Your task to perform on an android device: search for starred emails in the gmail app Image 0: 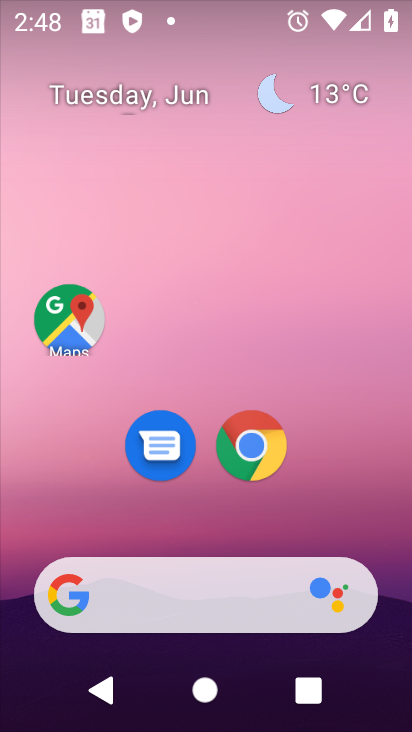
Step 0: drag from (391, 596) to (326, 78)
Your task to perform on an android device: search for starred emails in the gmail app Image 1: 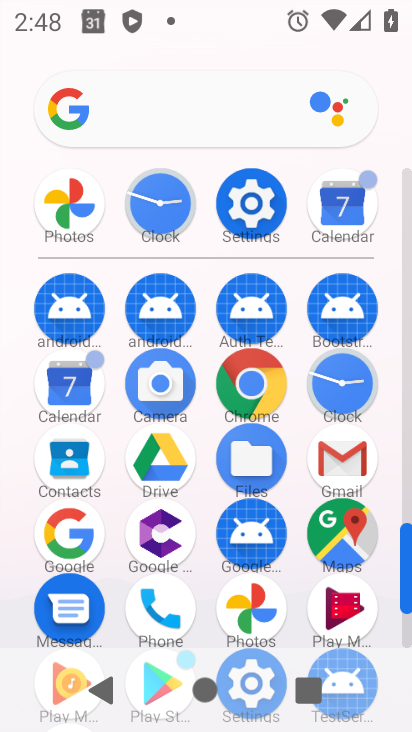
Step 1: click (410, 636)
Your task to perform on an android device: search for starred emails in the gmail app Image 2: 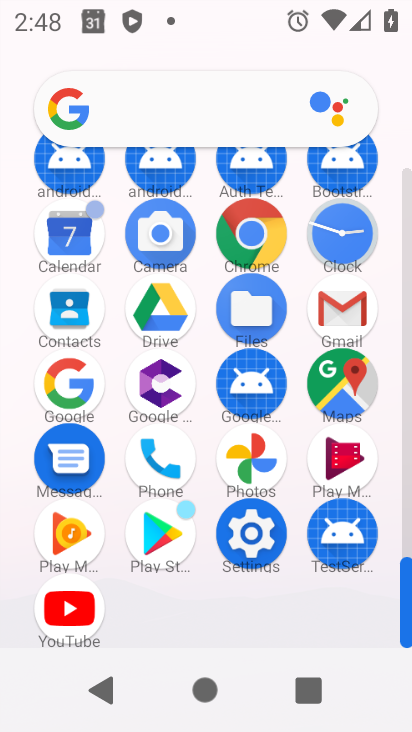
Step 2: click (341, 309)
Your task to perform on an android device: search for starred emails in the gmail app Image 3: 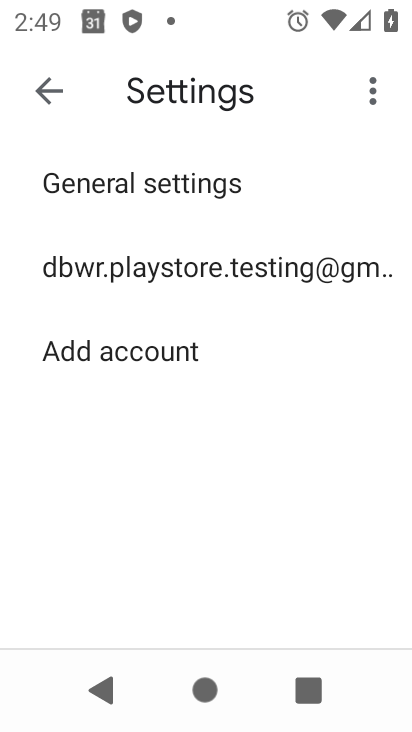
Step 3: press back button
Your task to perform on an android device: search for starred emails in the gmail app Image 4: 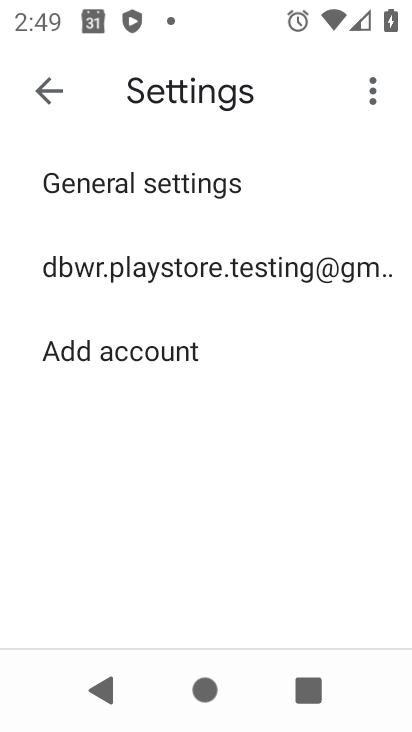
Step 4: press back button
Your task to perform on an android device: search for starred emails in the gmail app Image 5: 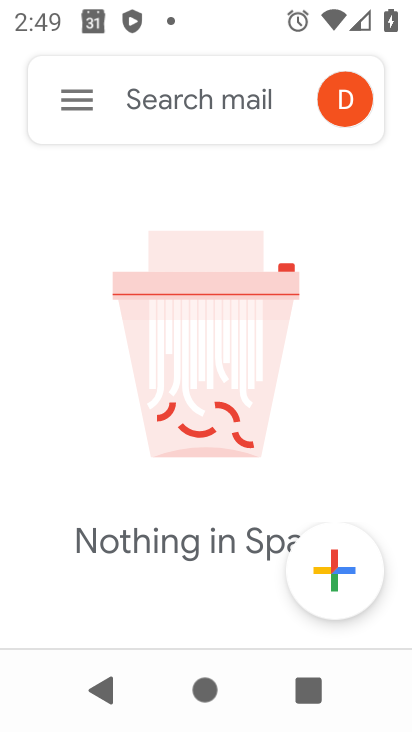
Step 5: click (71, 91)
Your task to perform on an android device: search for starred emails in the gmail app Image 6: 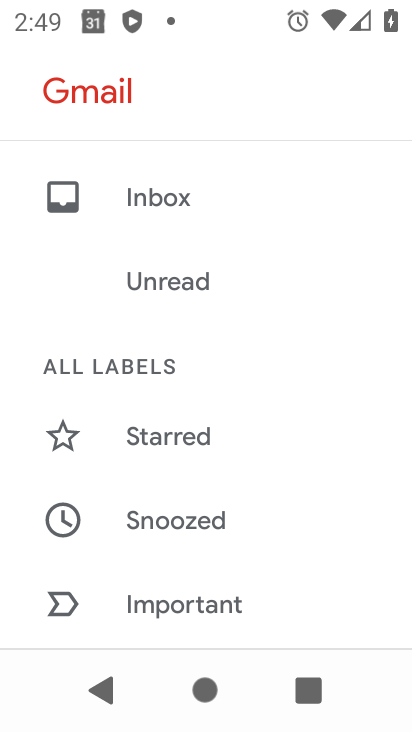
Step 6: click (162, 431)
Your task to perform on an android device: search for starred emails in the gmail app Image 7: 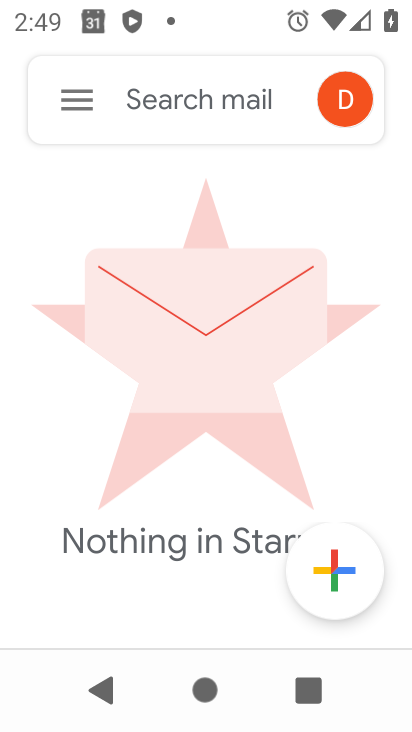
Step 7: task complete